Your task to perform on an android device: change alarm snooze length Image 0: 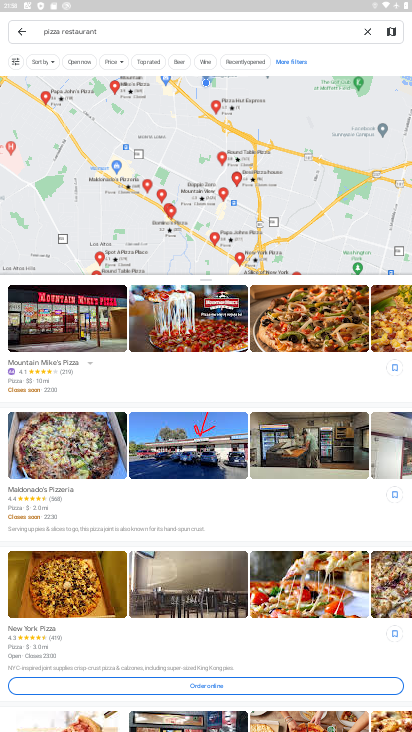
Step 0: press home button
Your task to perform on an android device: change alarm snooze length Image 1: 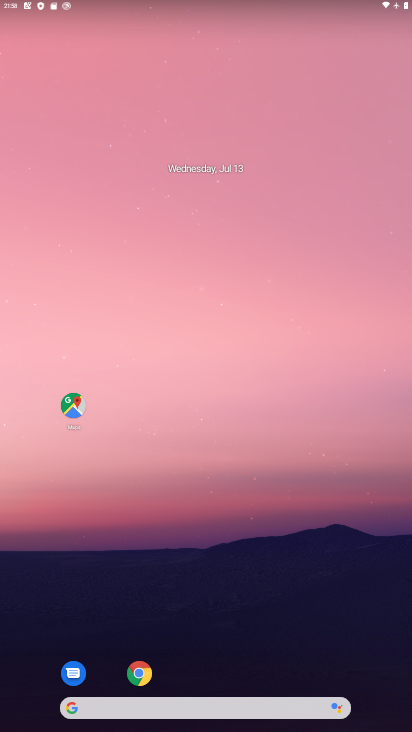
Step 1: drag from (207, 658) to (186, 233)
Your task to perform on an android device: change alarm snooze length Image 2: 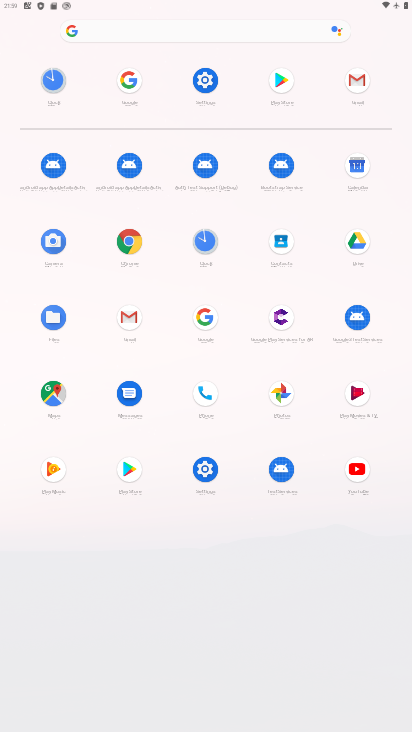
Step 2: click (188, 270)
Your task to perform on an android device: change alarm snooze length Image 3: 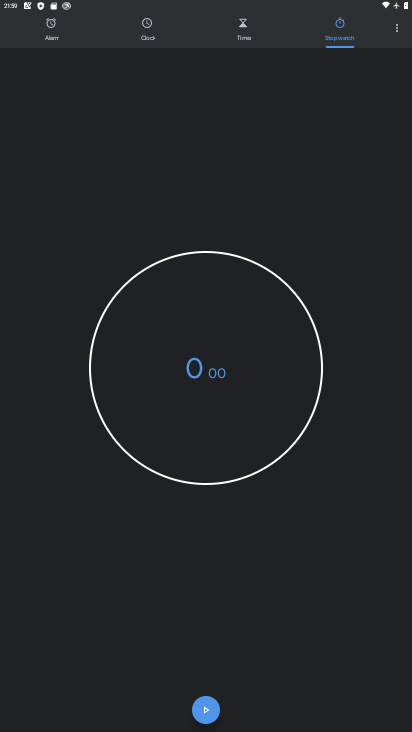
Step 3: click (55, 36)
Your task to perform on an android device: change alarm snooze length Image 4: 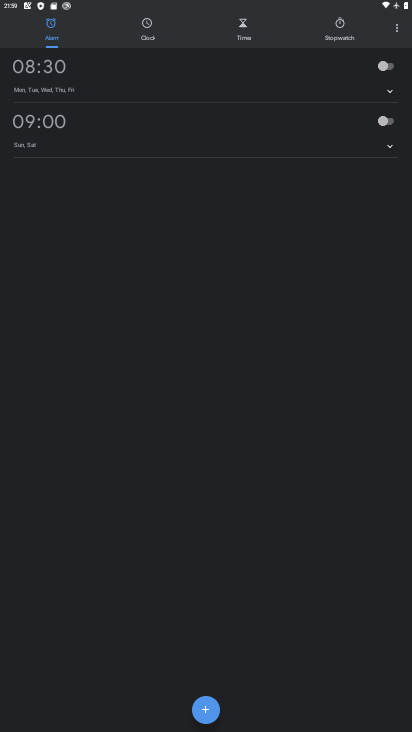
Step 4: click (390, 32)
Your task to perform on an android device: change alarm snooze length Image 5: 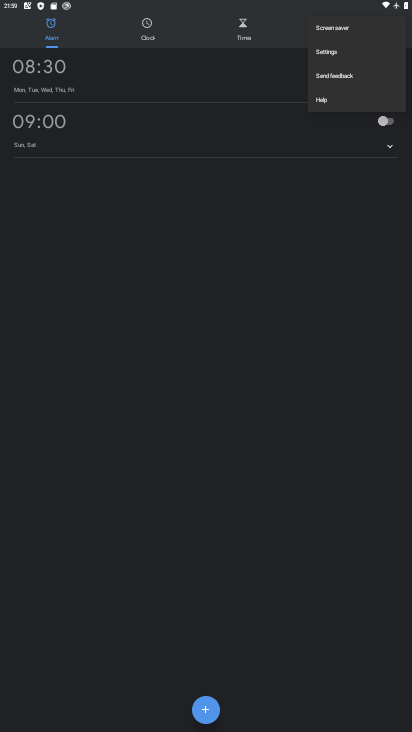
Step 5: click (349, 55)
Your task to perform on an android device: change alarm snooze length Image 6: 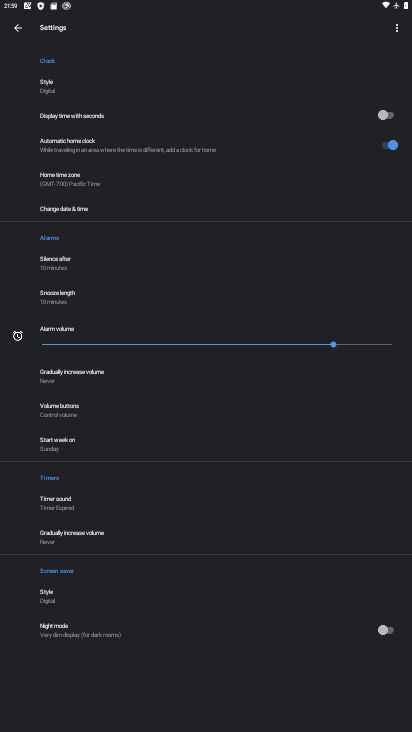
Step 6: click (58, 299)
Your task to perform on an android device: change alarm snooze length Image 7: 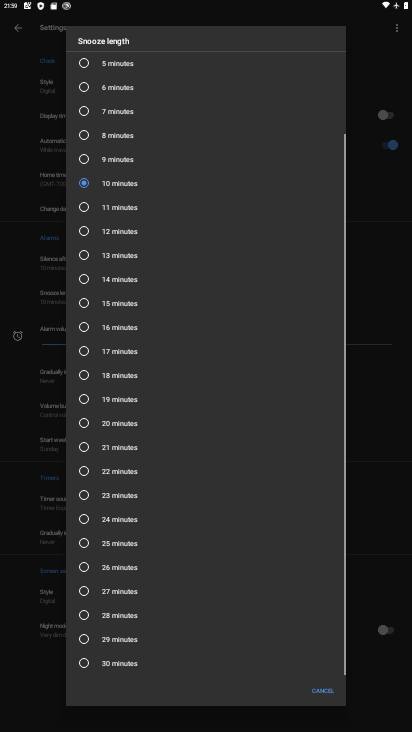
Step 7: click (141, 324)
Your task to perform on an android device: change alarm snooze length Image 8: 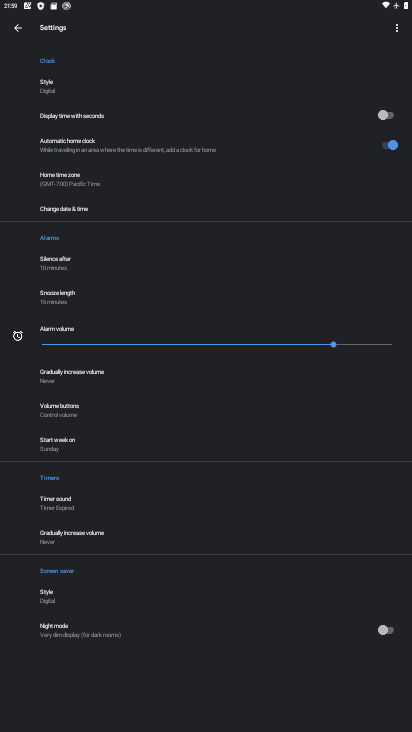
Step 8: task complete